Your task to perform on an android device: Clear the shopping cart on target. Image 0: 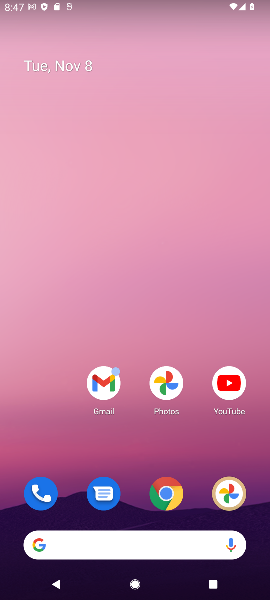
Step 0: click (169, 497)
Your task to perform on an android device: Clear the shopping cart on target. Image 1: 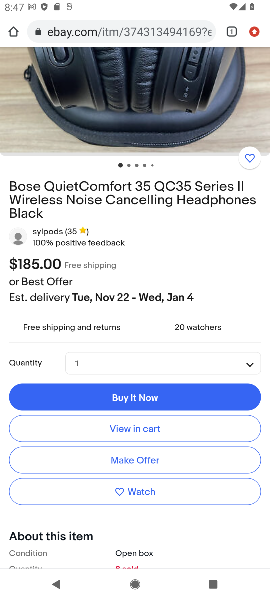
Step 1: click (116, 37)
Your task to perform on an android device: Clear the shopping cart on target. Image 2: 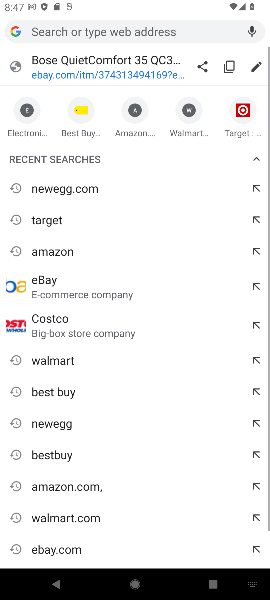
Step 2: click (247, 133)
Your task to perform on an android device: Clear the shopping cart on target. Image 3: 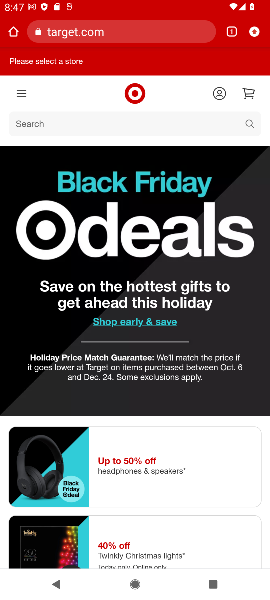
Step 3: click (247, 90)
Your task to perform on an android device: Clear the shopping cart on target. Image 4: 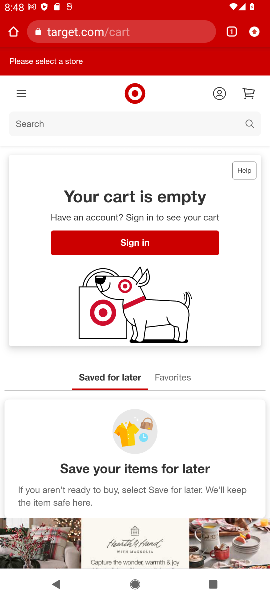
Step 4: task complete